Your task to perform on an android device: Show me popular videos on Youtube Image 0: 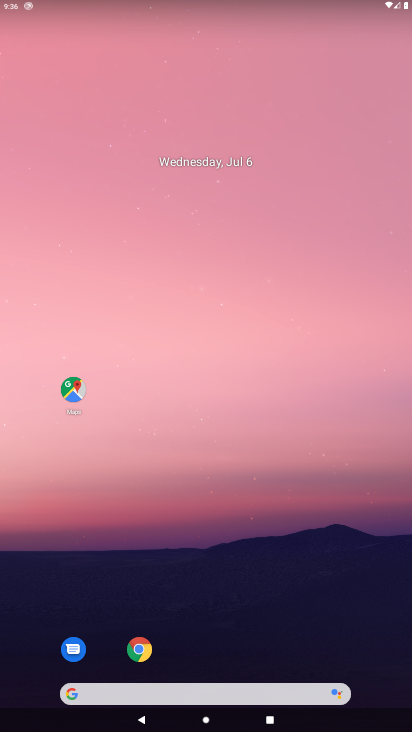
Step 0: drag from (232, 632) to (294, 52)
Your task to perform on an android device: Show me popular videos on Youtube Image 1: 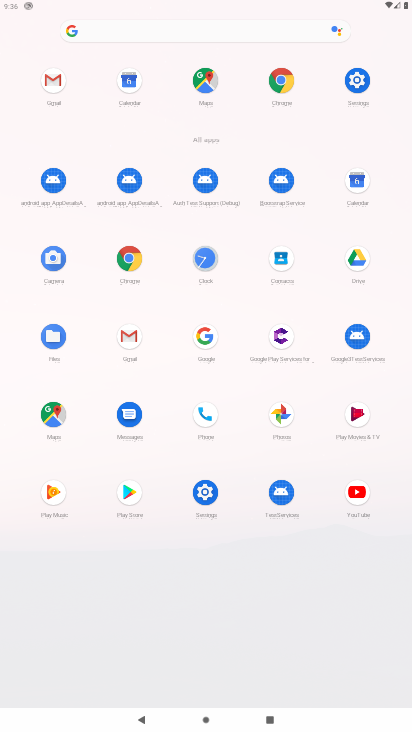
Step 1: click (357, 487)
Your task to perform on an android device: Show me popular videos on Youtube Image 2: 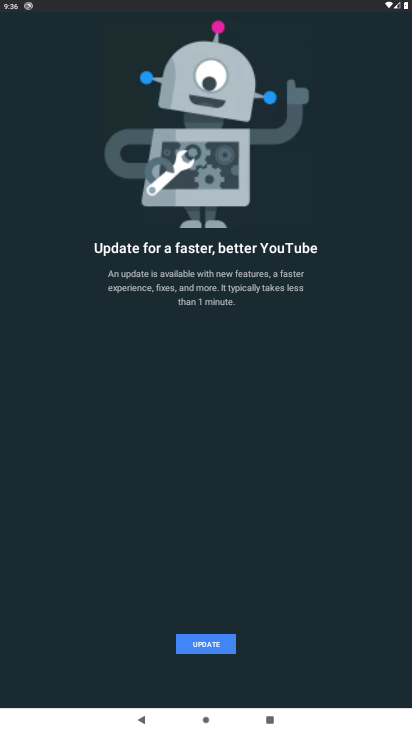
Step 2: click (209, 644)
Your task to perform on an android device: Show me popular videos on Youtube Image 3: 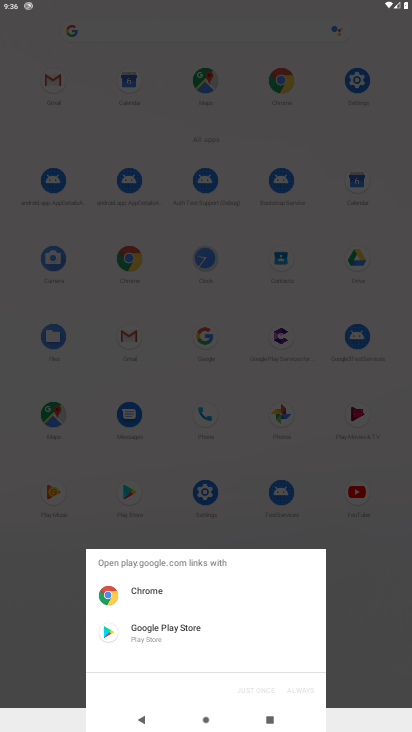
Step 3: click (143, 627)
Your task to perform on an android device: Show me popular videos on Youtube Image 4: 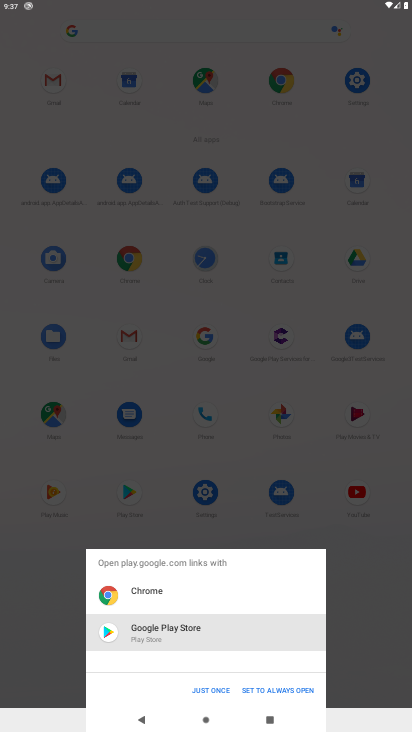
Step 4: click (203, 688)
Your task to perform on an android device: Show me popular videos on Youtube Image 5: 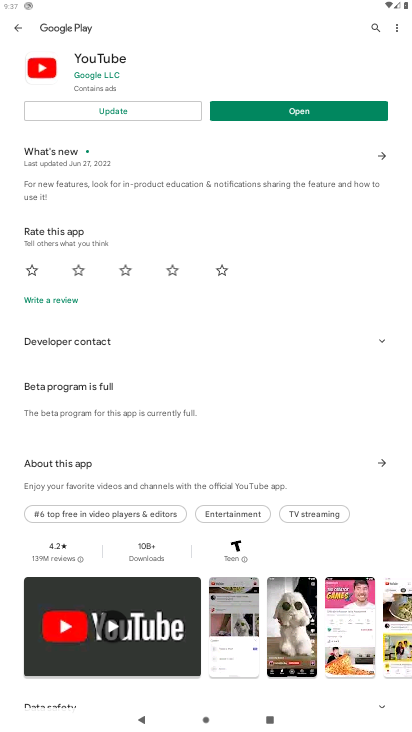
Step 5: click (114, 104)
Your task to perform on an android device: Show me popular videos on Youtube Image 6: 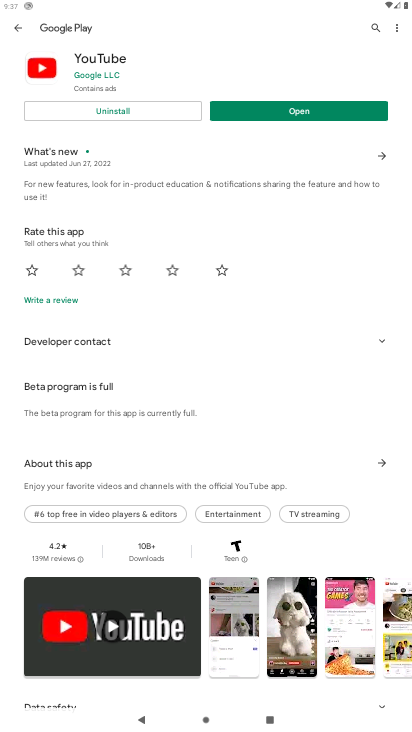
Step 6: click (292, 114)
Your task to perform on an android device: Show me popular videos on Youtube Image 7: 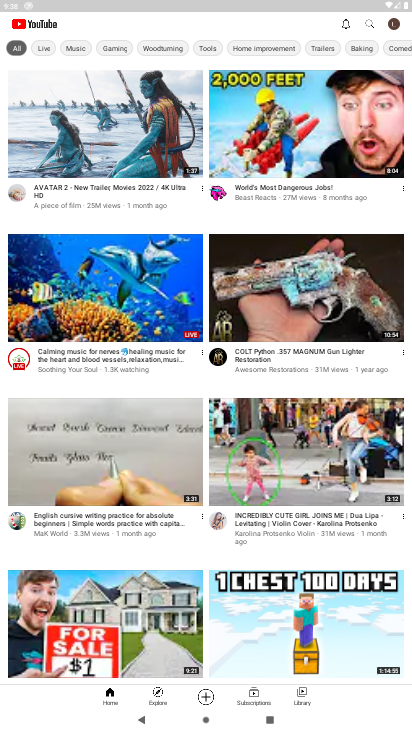
Step 7: drag from (97, 351) to (172, 100)
Your task to perform on an android device: Show me popular videos on Youtube Image 8: 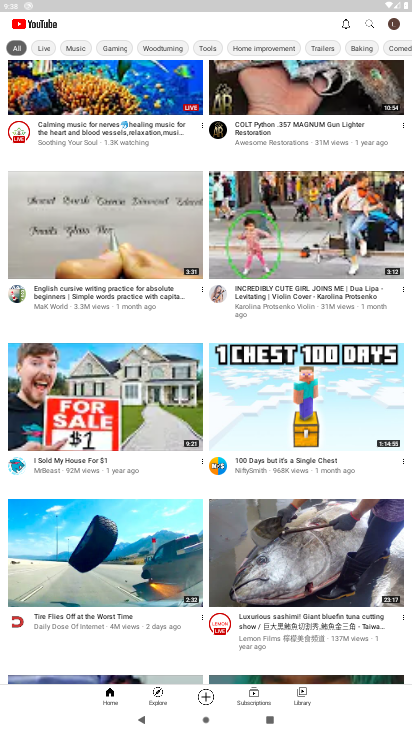
Step 8: drag from (154, 148) to (179, 604)
Your task to perform on an android device: Show me popular videos on Youtube Image 9: 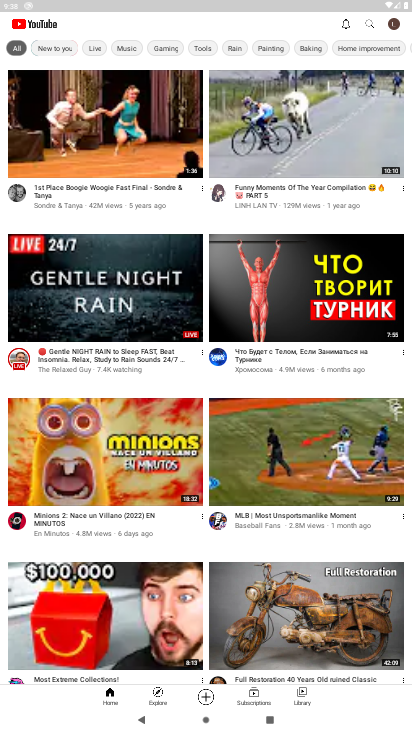
Step 9: click (54, 48)
Your task to perform on an android device: Show me popular videos on Youtube Image 10: 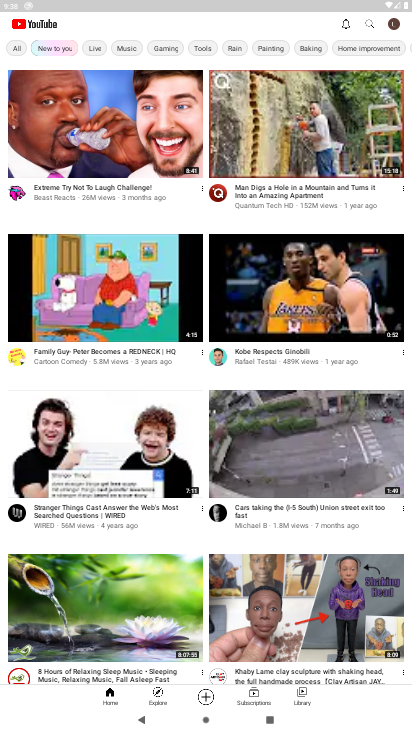
Step 10: click (10, 50)
Your task to perform on an android device: Show me popular videos on Youtube Image 11: 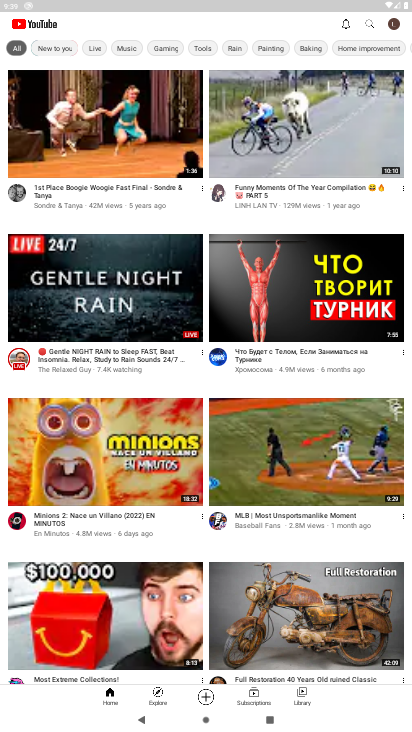
Step 11: click (389, 22)
Your task to perform on an android device: Show me popular videos on Youtube Image 12: 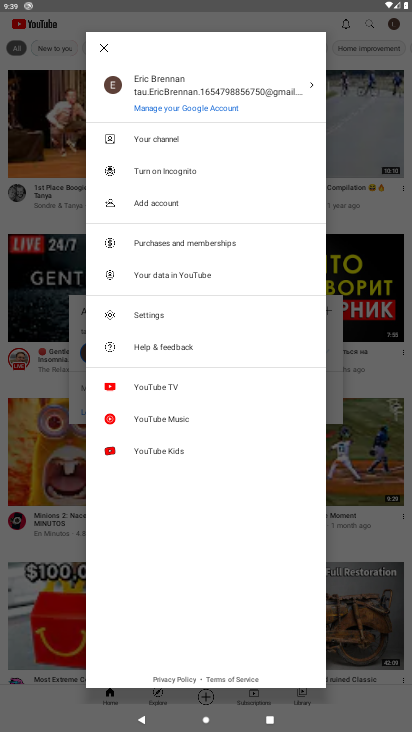
Step 12: click (100, 45)
Your task to perform on an android device: Show me popular videos on Youtube Image 13: 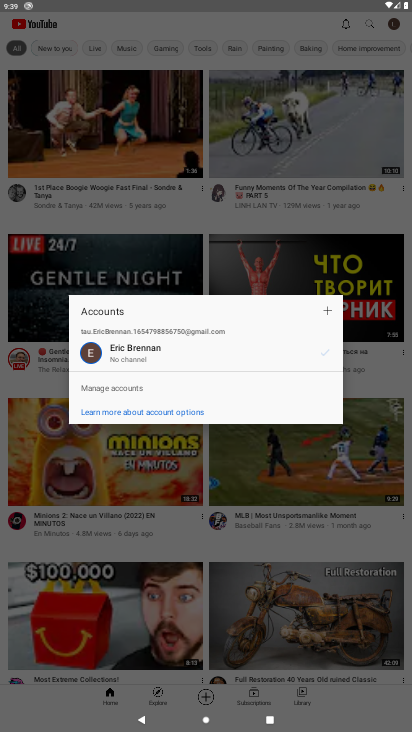
Step 13: click (177, 208)
Your task to perform on an android device: Show me popular videos on Youtube Image 14: 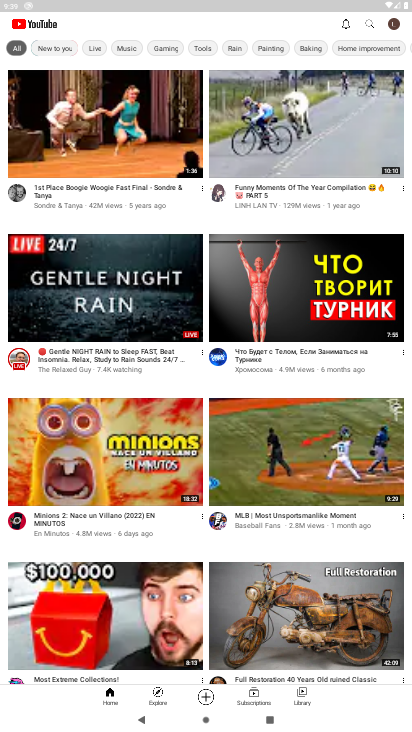
Step 14: click (304, 689)
Your task to perform on an android device: Show me popular videos on Youtube Image 15: 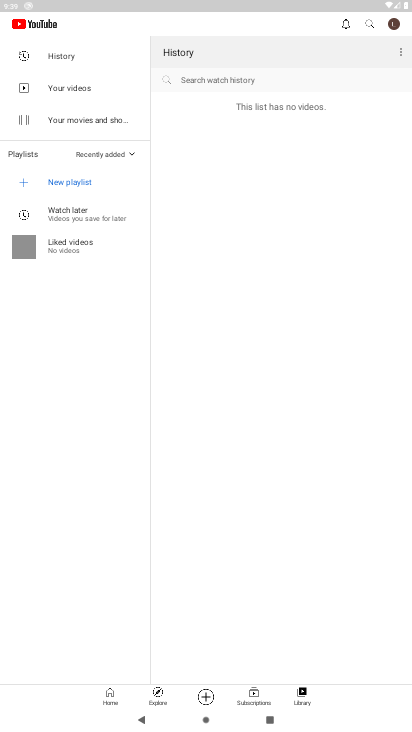
Step 15: click (128, 152)
Your task to perform on an android device: Show me popular videos on Youtube Image 16: 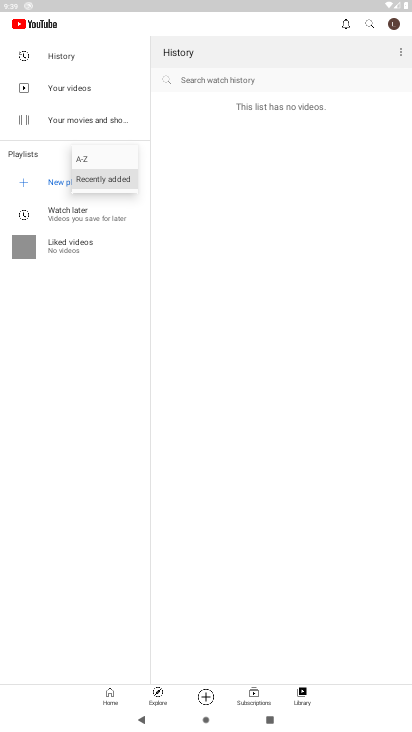
Step 16: click (222, 232)
Your task to perform on an android device: Show me popular videos on Youtube Image 17: 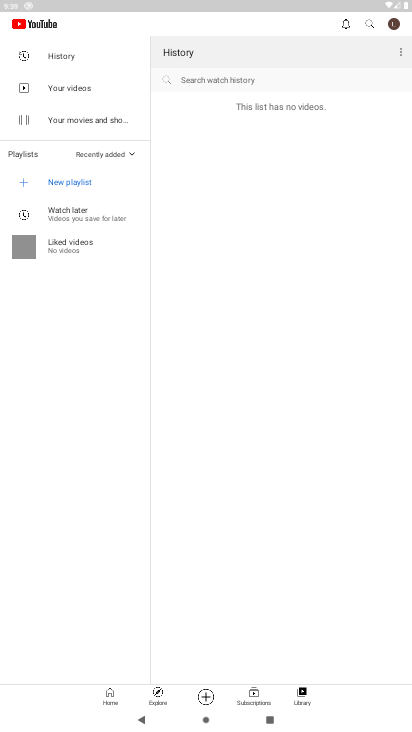
Step 17: click (155, 692)
Your task to perform on an android device: Show me popular videos on Youtube Image 18: 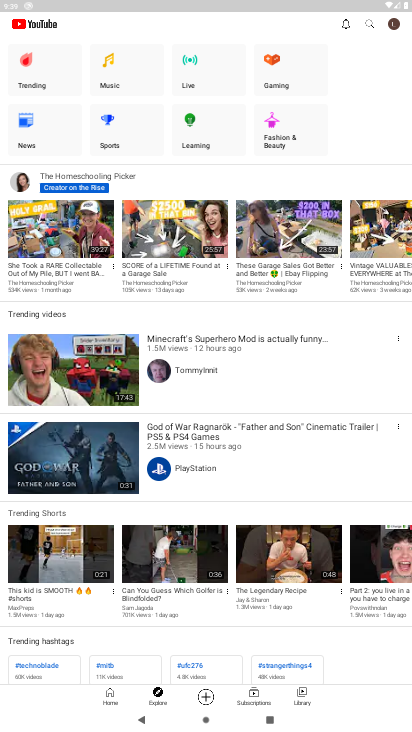
Step 18: click (27, 77)
Your task to perform on an android device: Show me popular videos on Youtube Image 19: 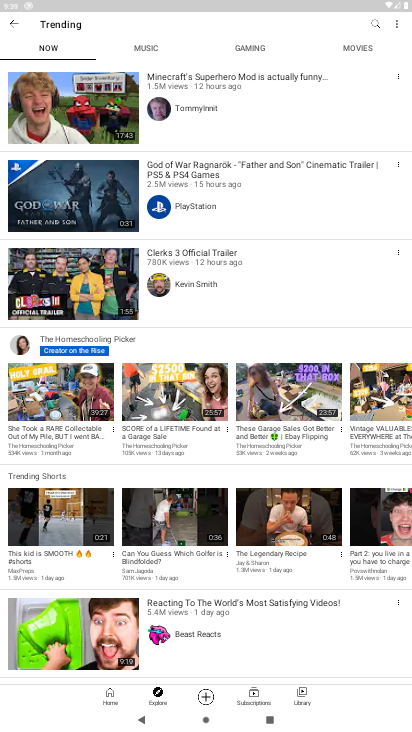
Step 19: task complete